Your task to perform on an android device: Go to accessibility settings Image 0: 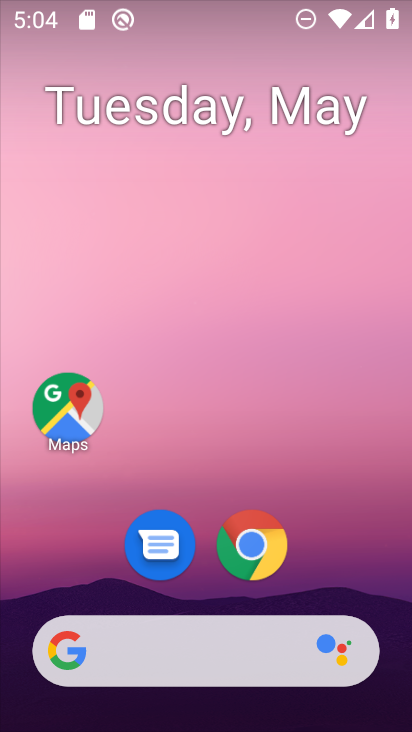
Step 0: drag from (332, 544) to (266, 39)
Your task to perform on an android device: Go to accessibility settings Image 1: 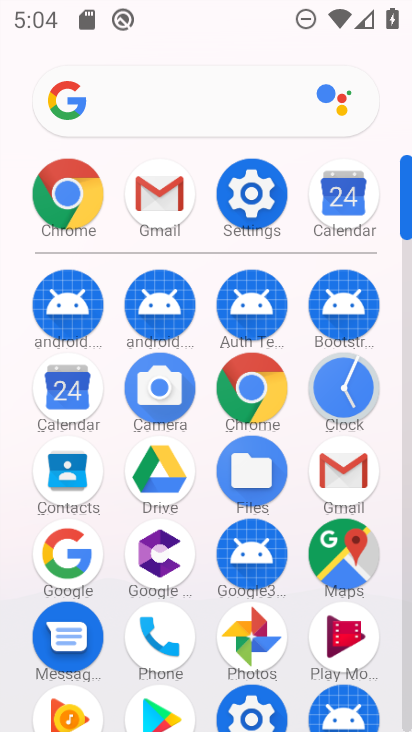
Step 1: drag from (8, 629) to (16, 253)
Your task to perform on an android device: Go to accessibility settings Image 2: 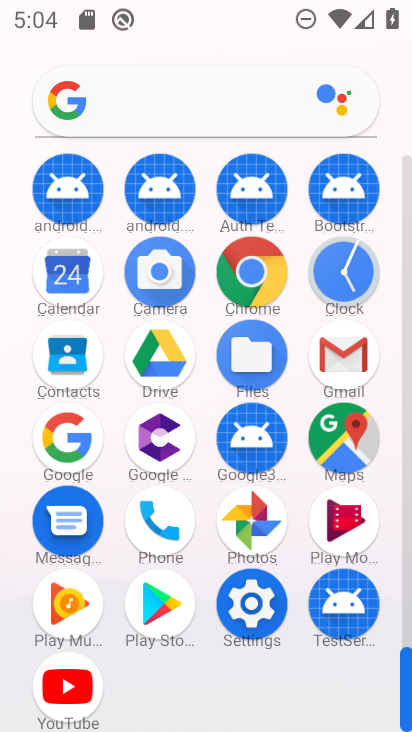
Step 2: click (253, 602)
Your task to perform on an android device: Go to accessibility settings Image 3: 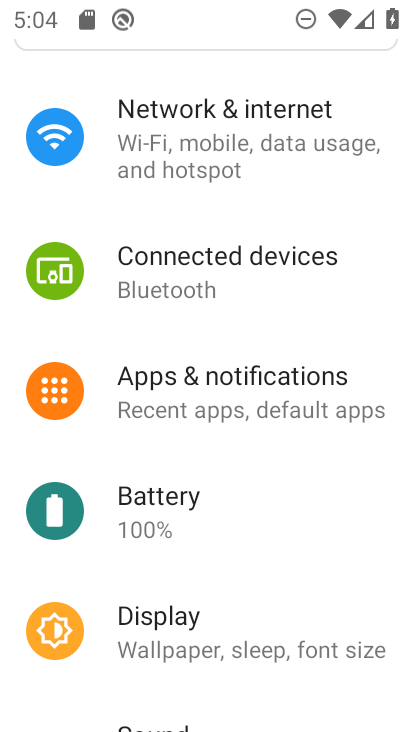
Step 3: drag from (257, 608) to (272, 104)
Your task to perform on an android device: Go to accessibility settings Image 4: 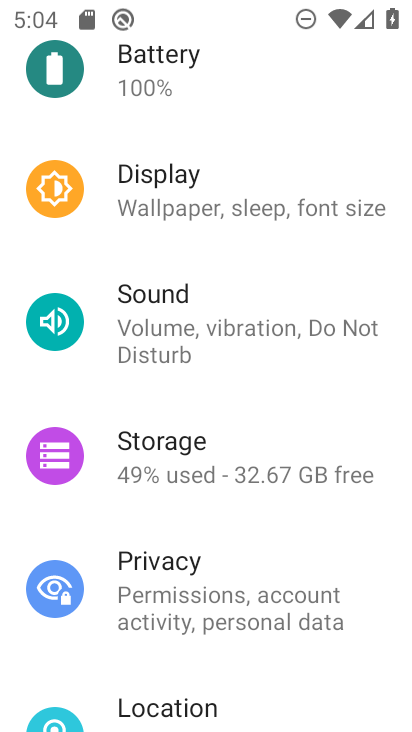
Step 4: drag from (251, 550) to (245, 136)
Your task to perform on an android device: Go to accessibility settings Image 5: 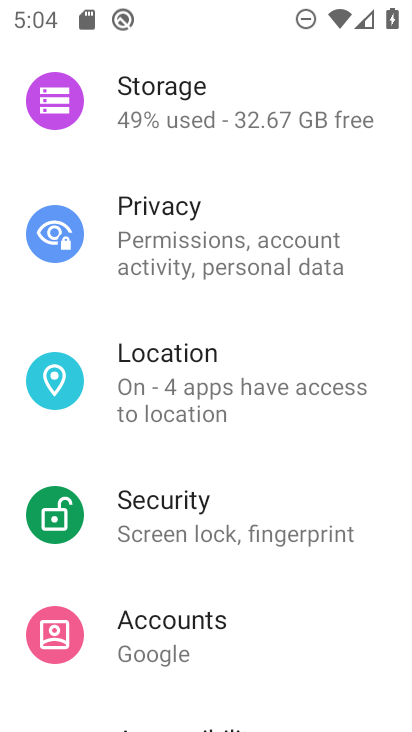
Step 5: drag from (251, 546) to (273, 172)
Your task to perform on an android device: Go to accessibility settings Image 6: 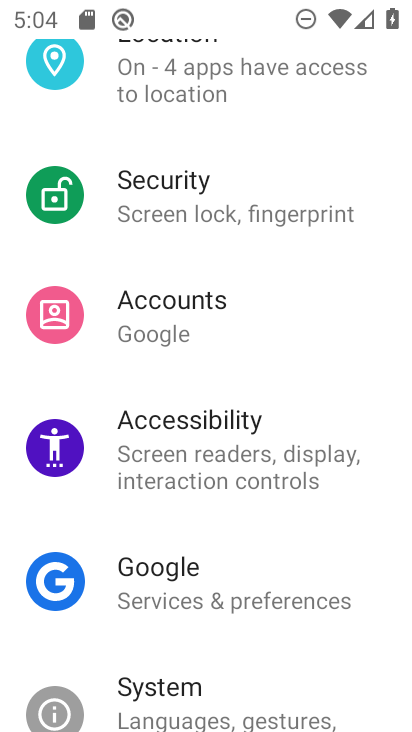
Step 6: drag from (292, 613) to (333, 116)
Your task to perform on an android device: Go to accessibility settings Image 7: 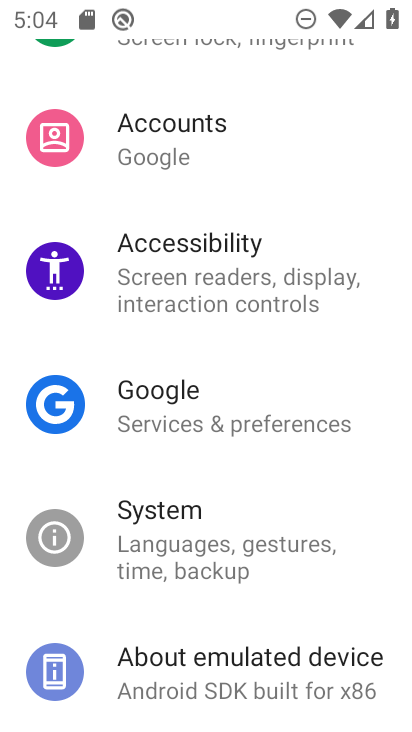
Step 7: drag from (275, 514) to (264, 94)
Your task to perform on an android device: Go to accessibility settings Image 8: 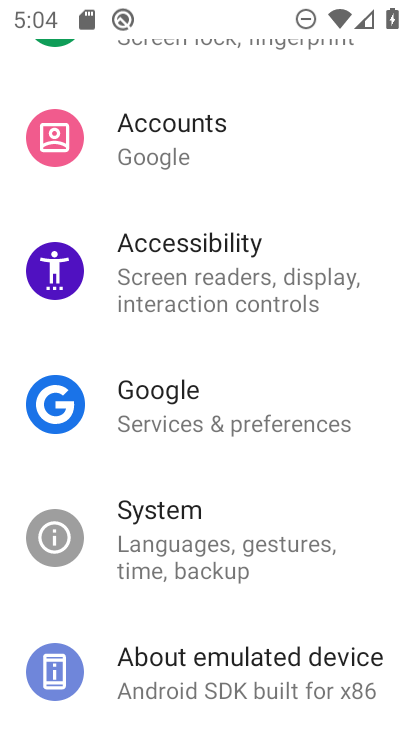
Step 8: drag from (266, 114) to (266, 235)
Your task to perform on an android device: Go to accessibility settings Image 9: 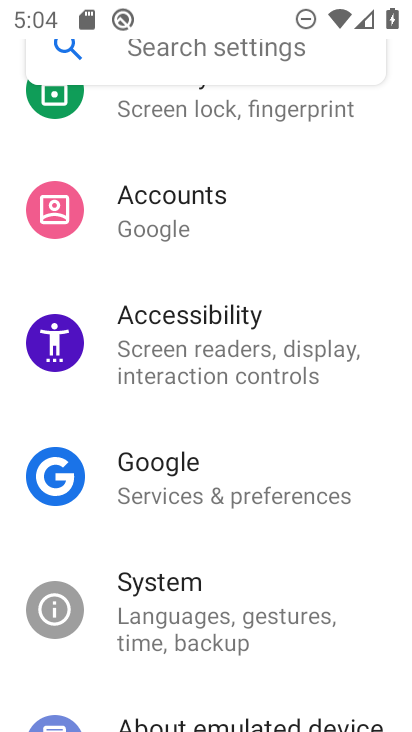
Step 9: click (238, 365)
Your task to perform on an android device: Go to accessibility settings Image 10: 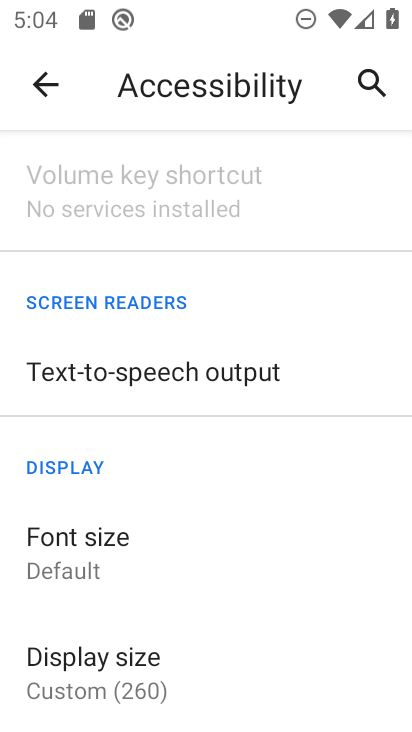
Step 10: task complete